Your task to perform on an android device: Open notification settings Image 0: 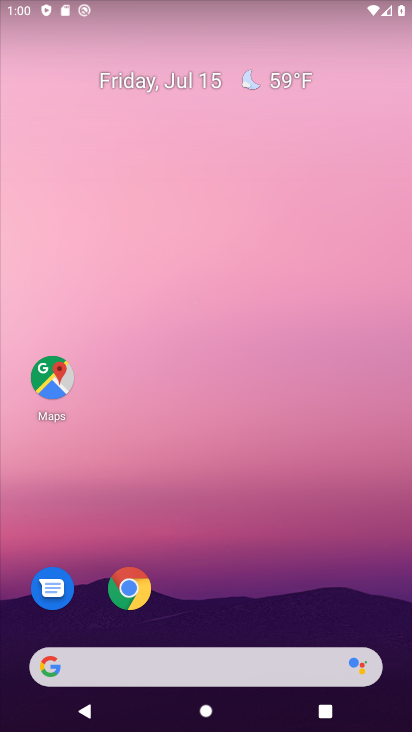
Step 0: drag from (221, 590) to (204, 62)
Your task to perform on an android device: Open notification settings Image 1: 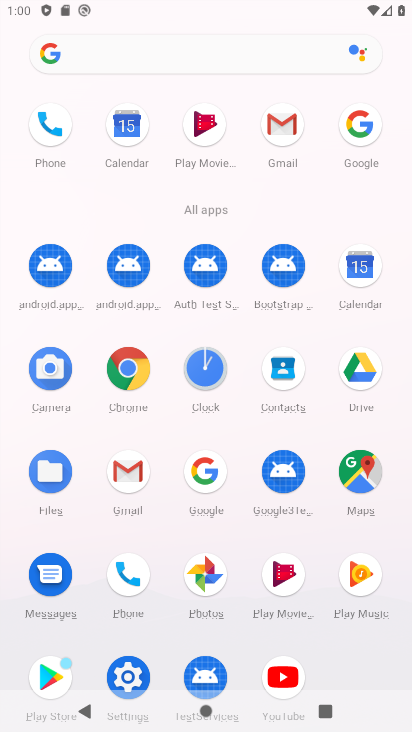
Step 1: click (130, 669)
Your task to perform on an android device: Open notification settings Image 2: 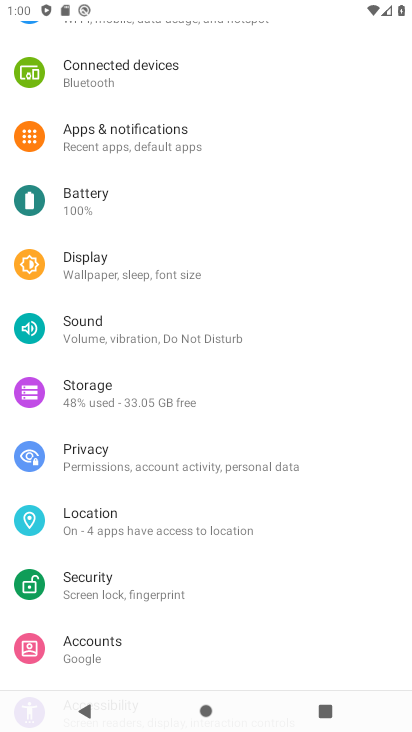
Step 2: click (147, 135)
Your task to perform on an android device: Open notification settings Image 3: 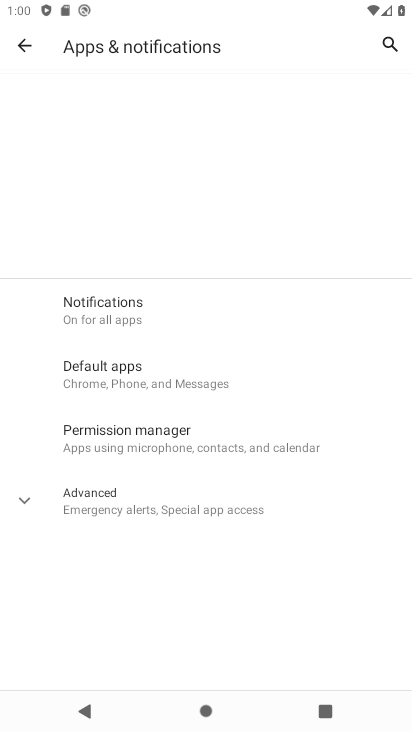
Step 3: click (144, 306)
Your task to perform on an android device: Open notification settings Image 4: 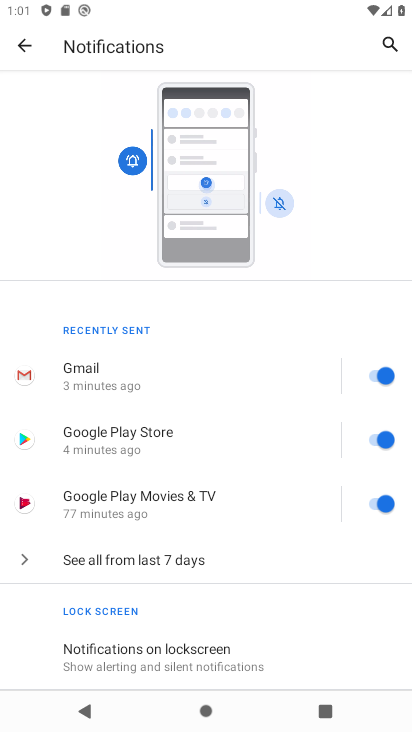
Step 4: task complete